Your task to perform on an android device: open a new tab in the chrome app Image 0: 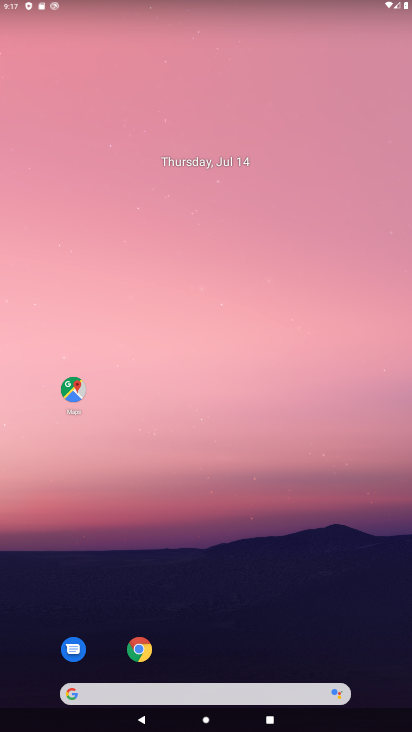
Step 0: click (145, 652)
Your task to perform on an android device: open a new tab in the chrome app Image 1: 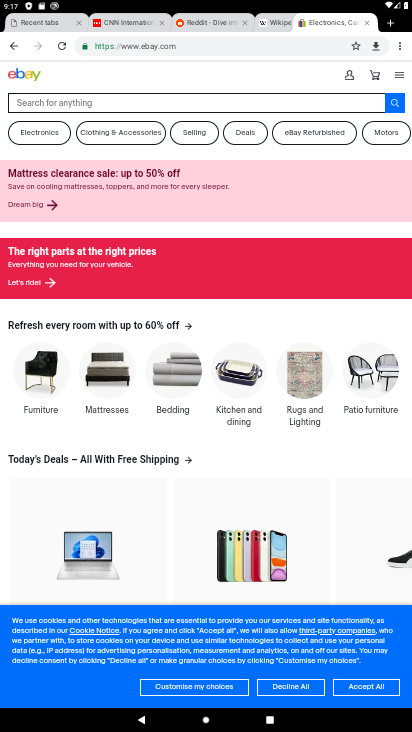
Step 1: click (395, 26)
Your task to perform on an android device: open a new tab in the chrome app Image 2: 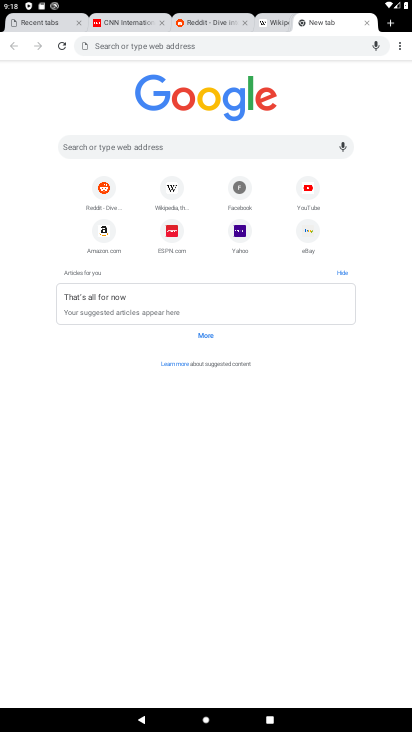
Step 2: task complete